Your task to perform on an android device: empty trash in google photos Image 0: 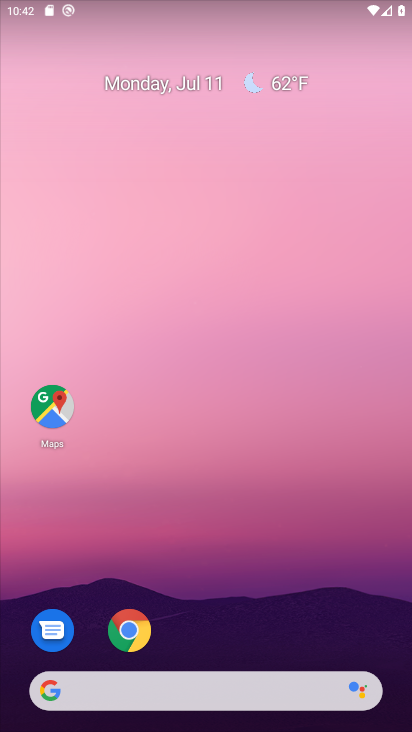
Step 0: drag from (243, 583) to (196, 58)
Your task to perform on an android device: empty trash in google photos Image 1: 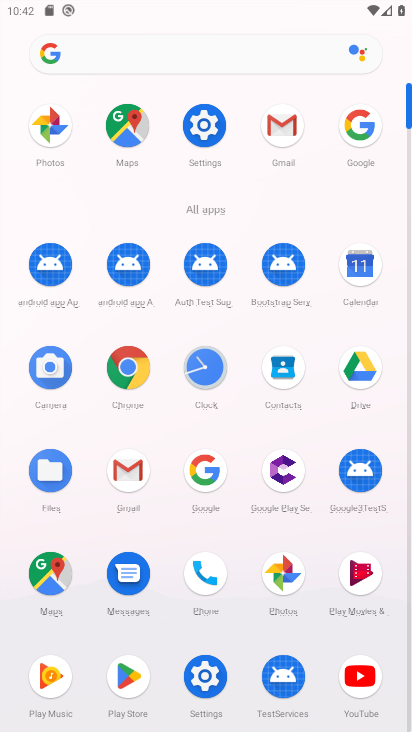
Step 1: click (53, 133)
Your task to perform on an android device: empty trash in google photos Image 2: 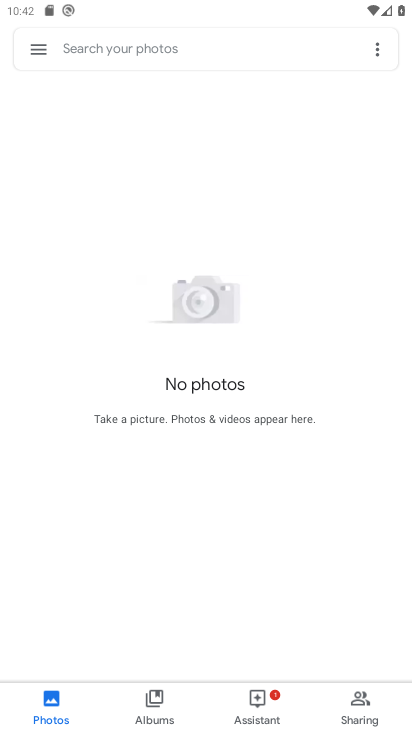
Step 2: click (37, 46)
Your task to perform on an android device: empty trash in google photos Image 3: 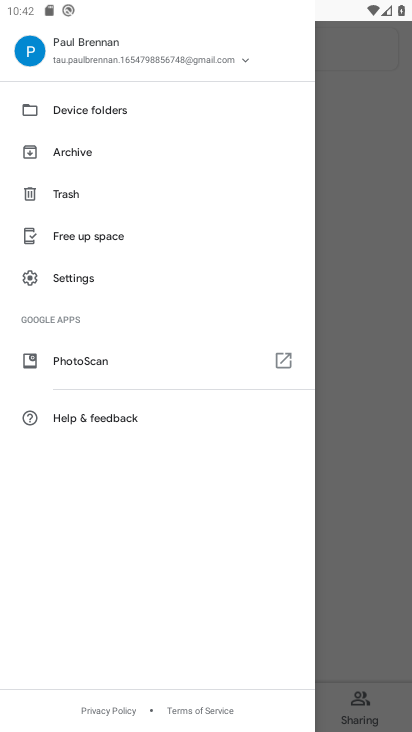
Step 3: click (71, 193)
Your task to perform on an android device: empty trash in google photos Image 4: 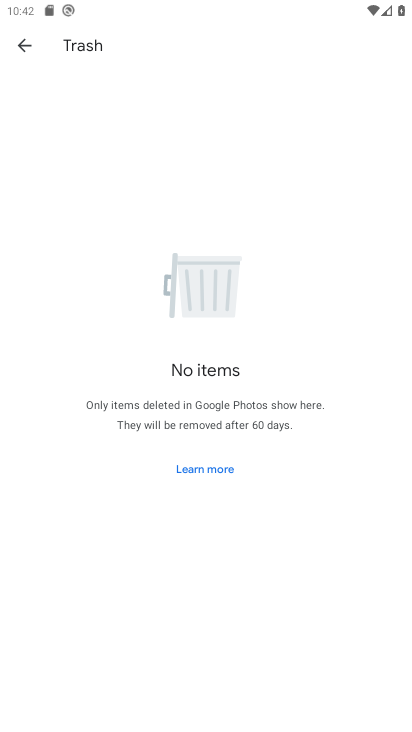
Step 4: task complete